Your task to perform on an android device: open app "WhatsApp Messenger" (install if not already installed), go to login, and select forgot password Image 0: 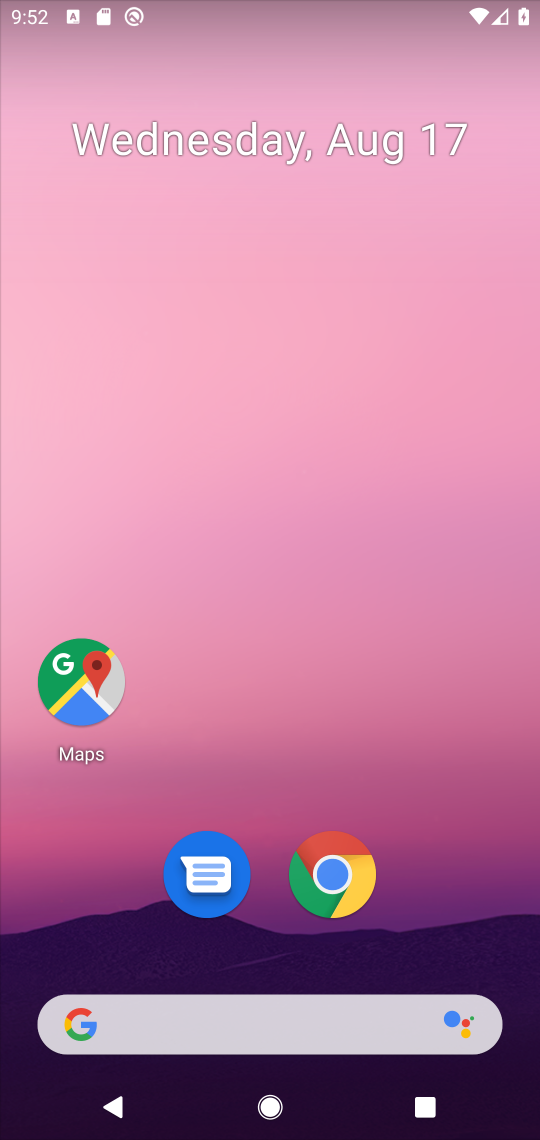
Step 0: drag from (217, 1018) to (235, 459)
Your task to perform on an android device: open app "WhatsApp Messenger" (install if not already installed), go to login, and select forgot password Image 1: 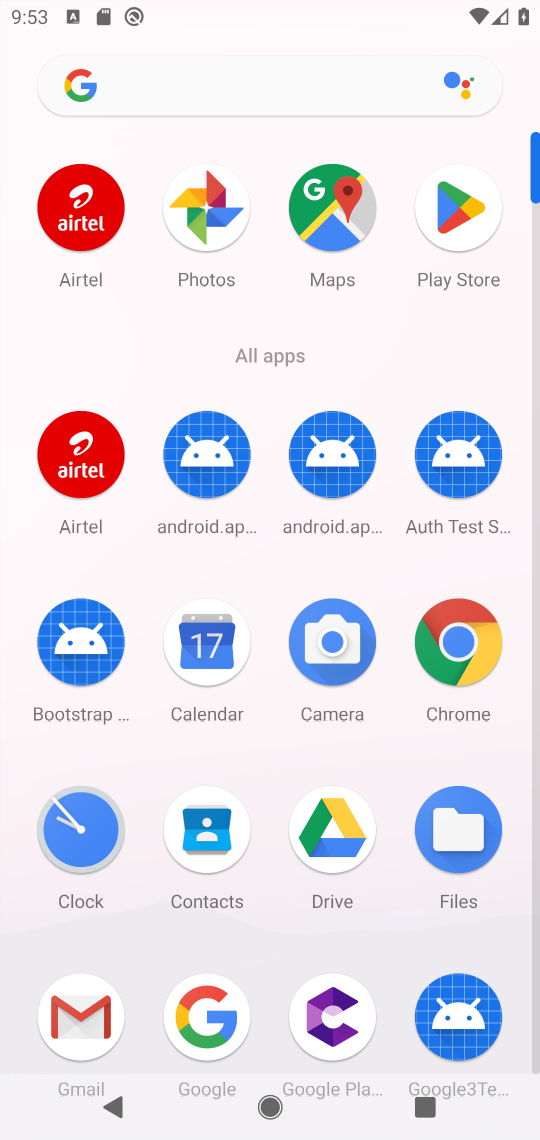
Step 1: click (483, 229)
Your task to perform on an android device: open app "WhatsApp Messenger" (install if not already installed), go to login, and select forgot password Image 2: 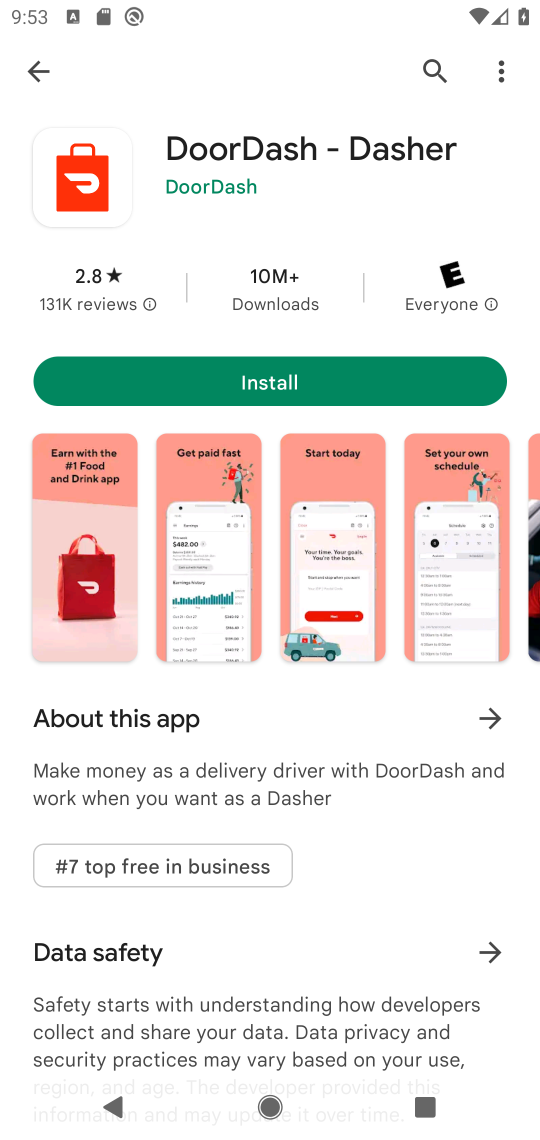
Step 2: click (39, 80)
Your task to perform on an android device: open app "WhatsApp Messenger" (install if not already installed), go to login, and select forgot password Image 3: 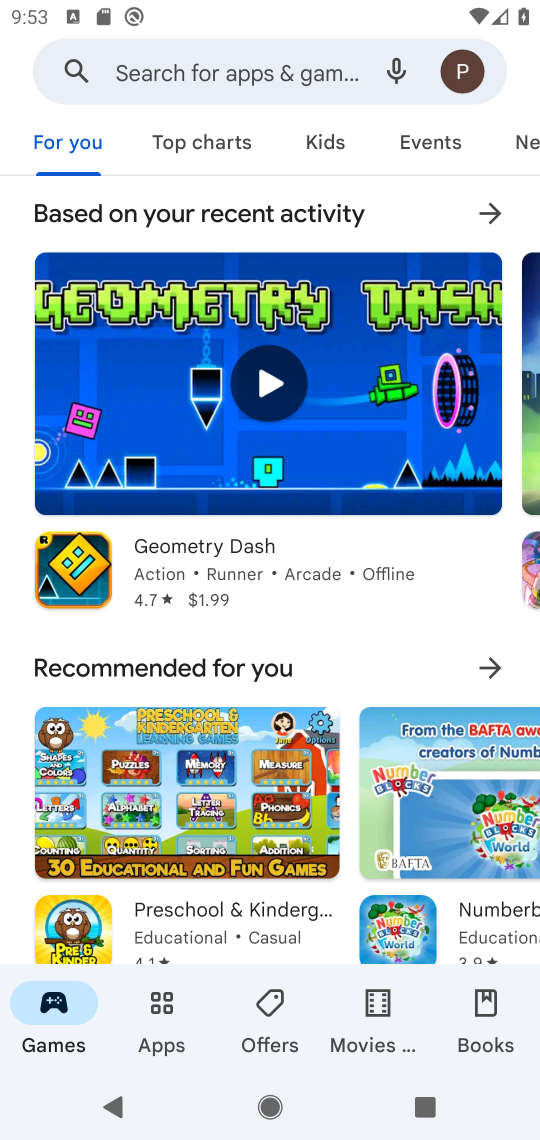
Step 3: click (126, 73)
Your task to perform on an android device: open app "WhatsApp Messenger" (install if not already installed), go to login, and select forgot password Image 4: 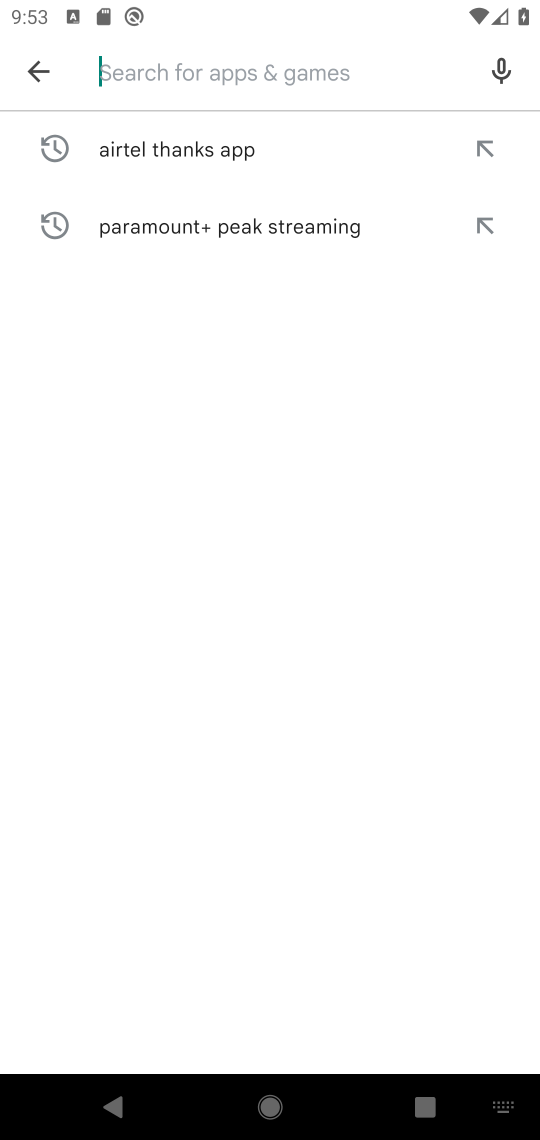
Step 4: type "WhatsApp Messenger"
Your task to perform on an android device: open app "WhatsApp Messenger" (install if not already installed), go to login, and select forgot password Image 5: 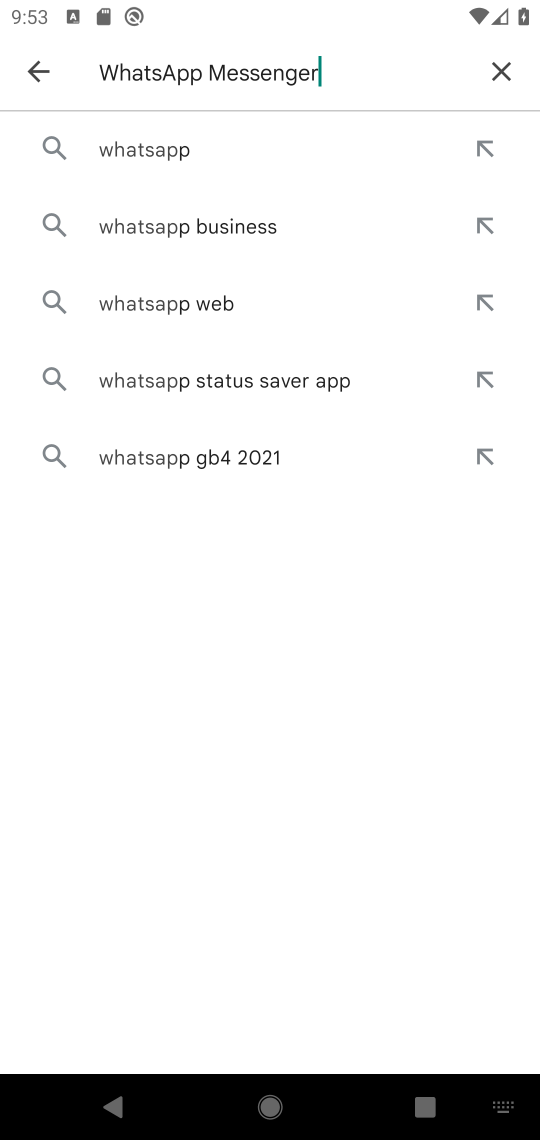
Step 5: type ""
Your task to perform on an android device: open app "WhatsApp Messenger" (install if not already installed), go to login, and select forgot password Image 6: 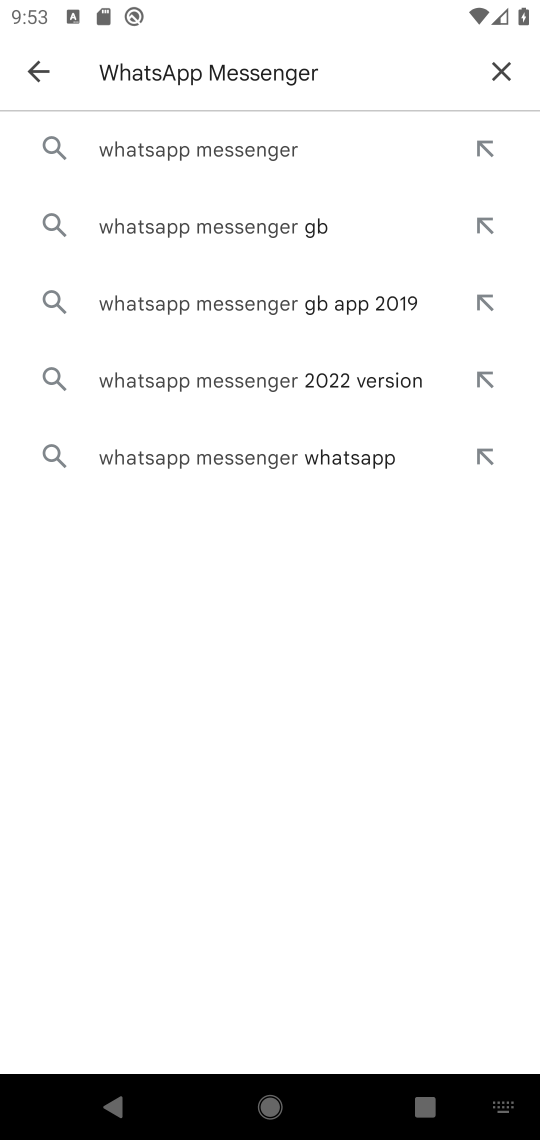
Step 6: click (184, 150)
Your task to perform on an android device: open app "WhatsApp Messenger" (install if not already installed), go to login, and select forgot password Image 7: 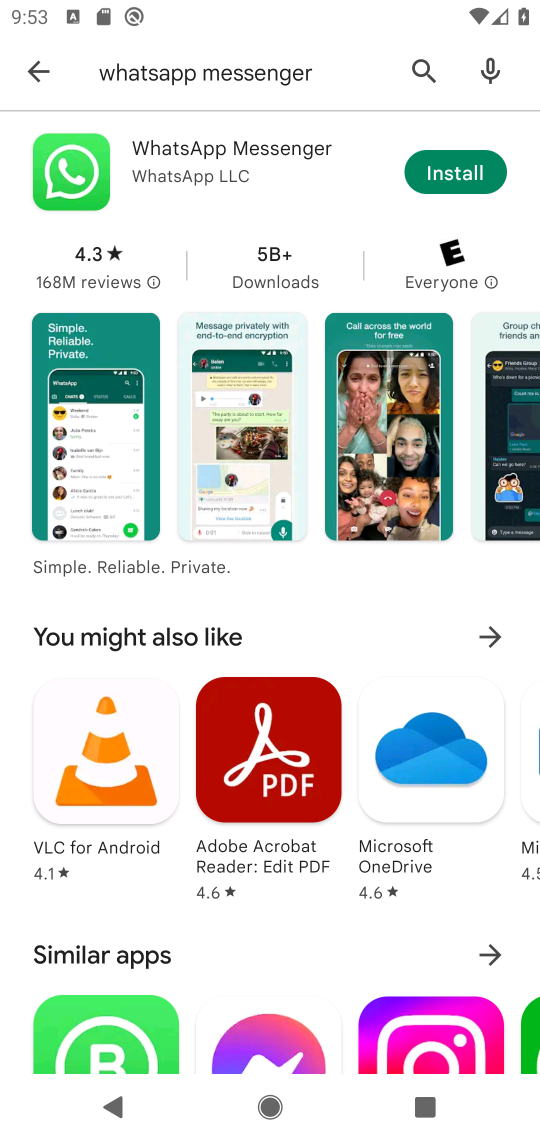
Step 7: click (473, 185)
Your task to perform on an android device: open app "WhatsApp Messenger" (install if not already installed), go to login, and select forgot password Image 8: 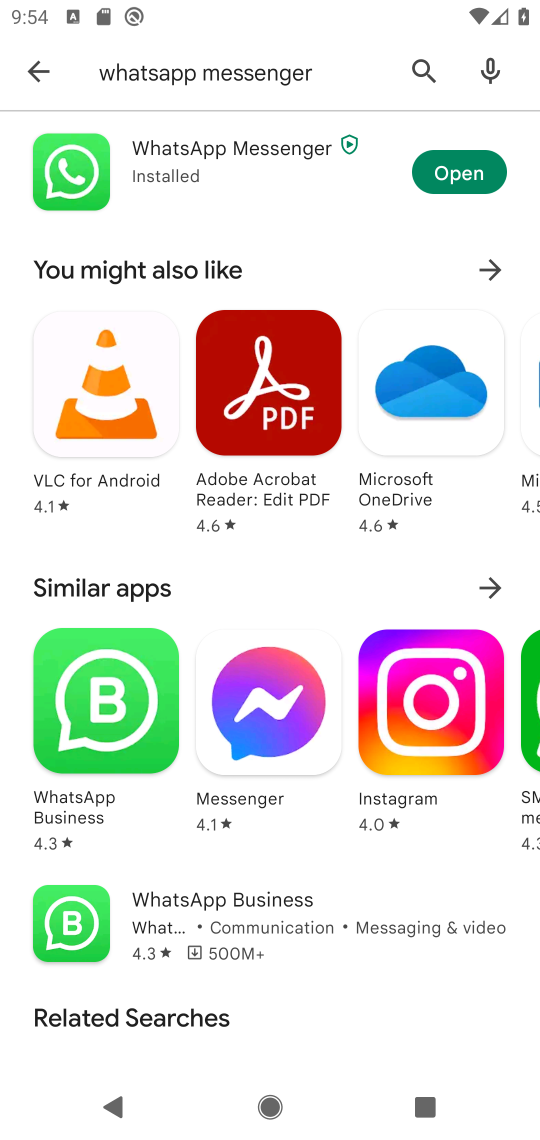
Step 8: click (469, 190)
Your task to perform on an android device: open app "WhatsApp Messenger" (install if not already installed), go to login, and select forgot password Image 9: 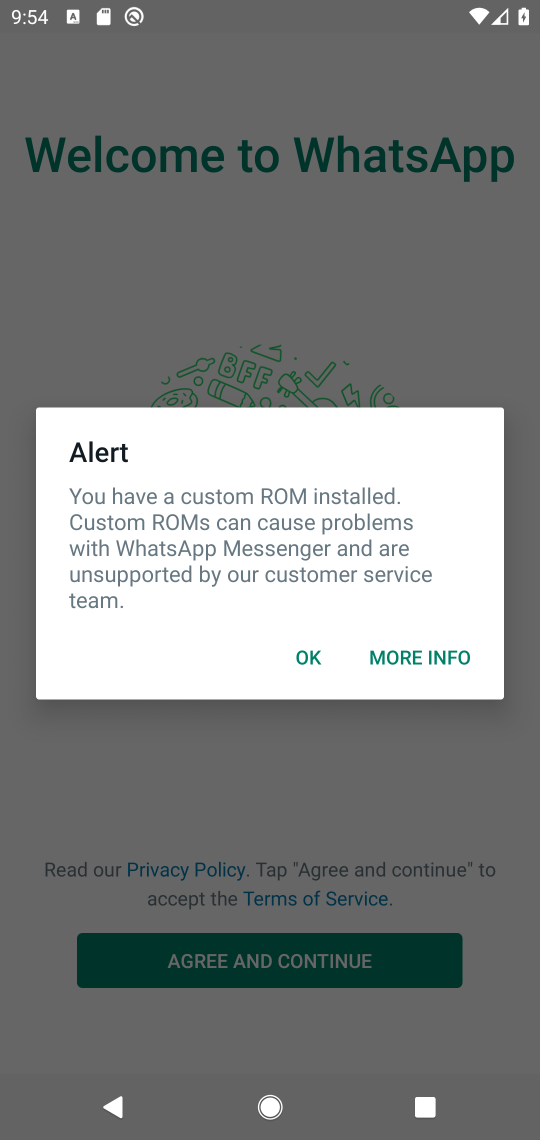
Step 9: click (312, 664)
Your task to perform on an android device: open app "WhatsApp Messenger" (install if not already installed), go to login, and select forgot password Image 10: 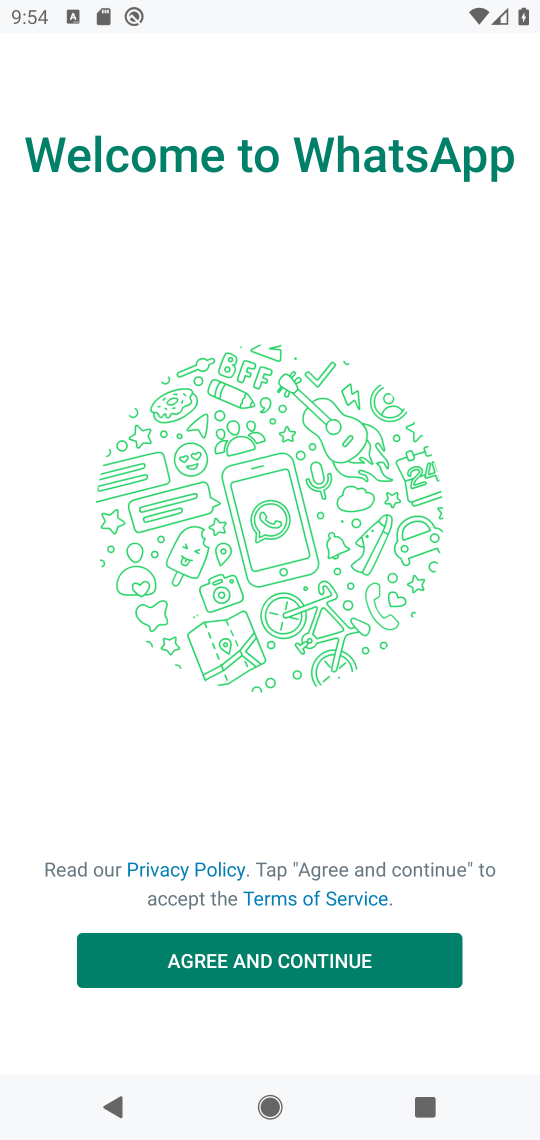
Step 10: task complete